Your task to perform on an android device: Go to settings Image 0: 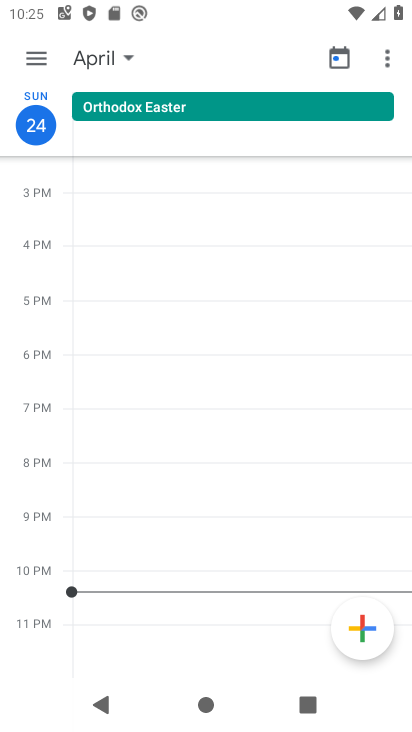
Step 0: press home button
Your task to perform on an android device: Go to settings Image 1: 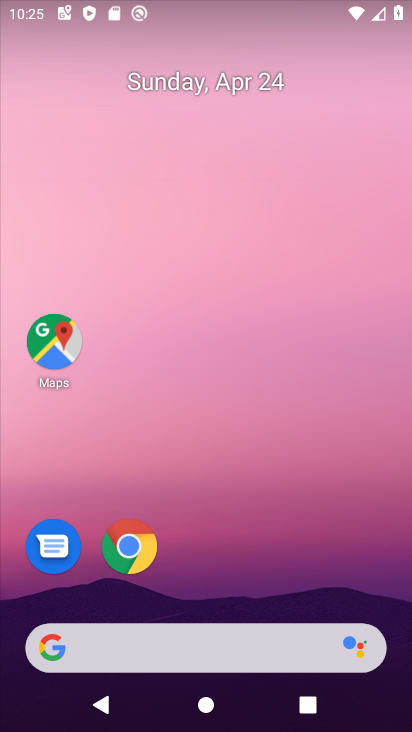
Step 1: drag from (300, 587) to (344, 9)
Your task to perform on an android device: Go to settings Image 2: 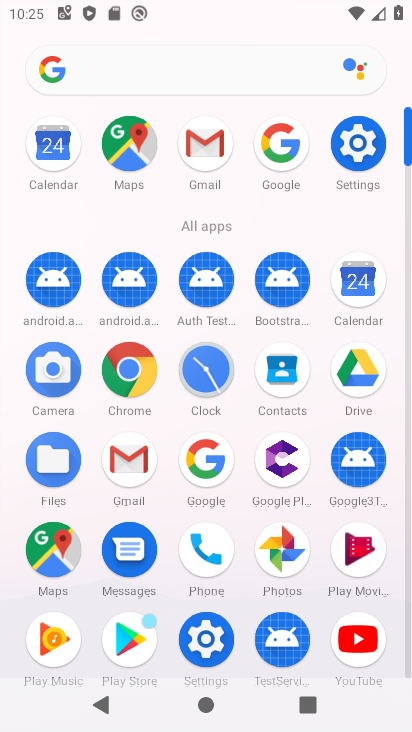
Step 2: click (356, 145)
Your task to perform on an android device: Go to settings Image 3: 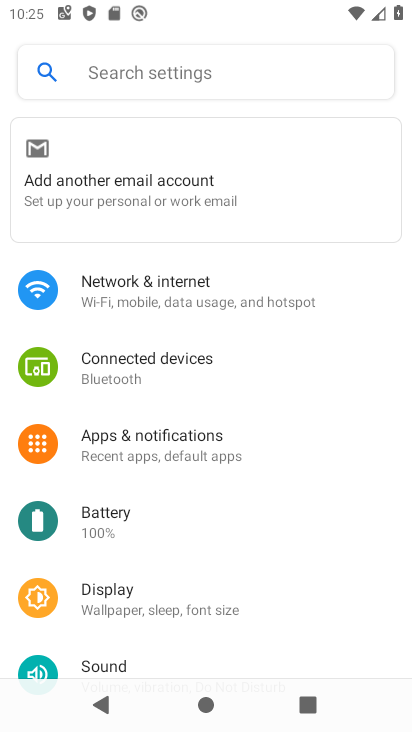
Step 3: task complete